Your task to perform on an android device: What's the weather like in Johannesburg? Image 0: 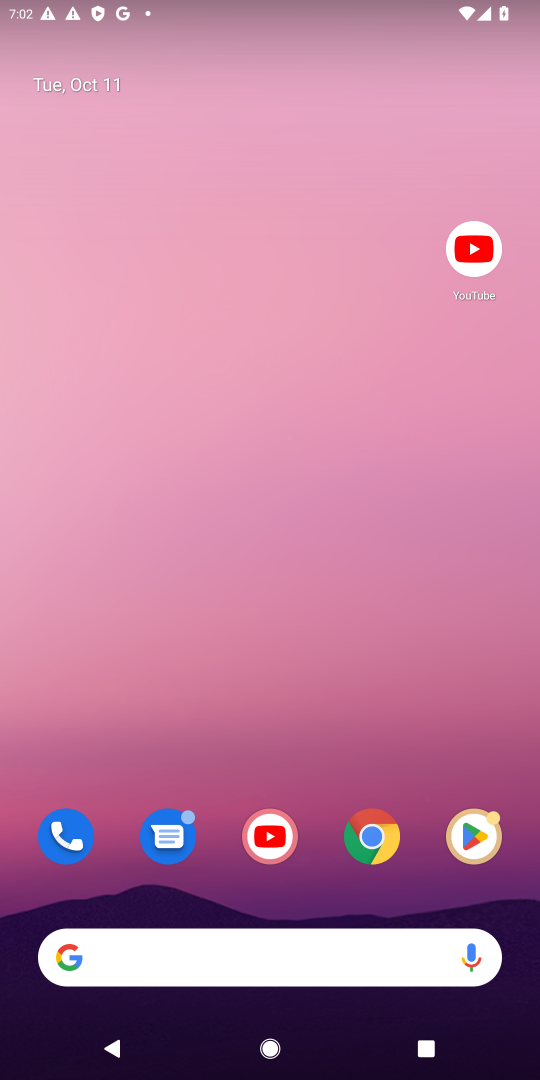
Step 0: click (368, 836)
Your task to perform on an android device: What's the weather like in Johannesburg? Image 1: 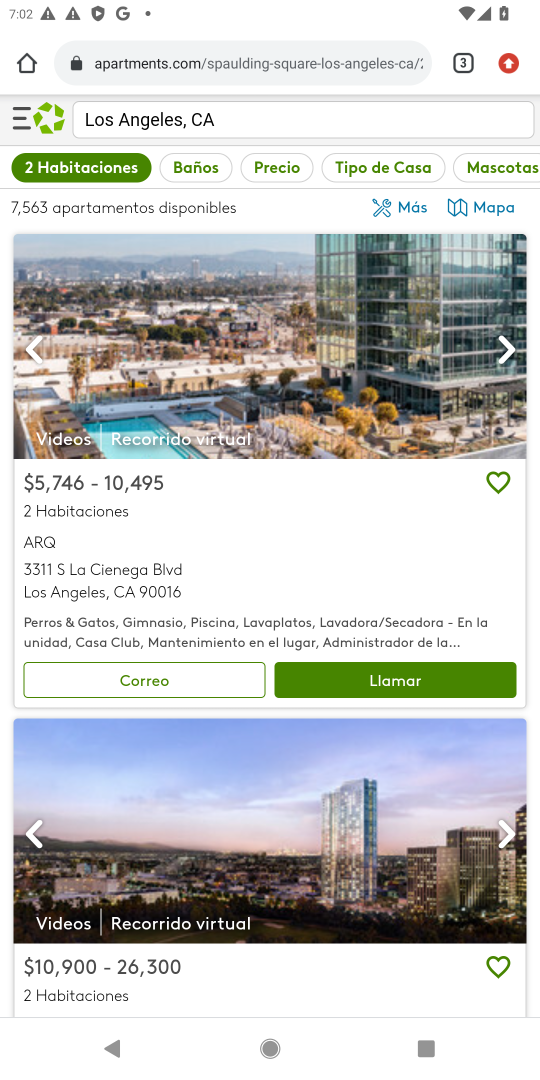
Step 1: click (331, 49)
Your task to perform on an android device: What's the weather like in Johannesburg? Image 2: 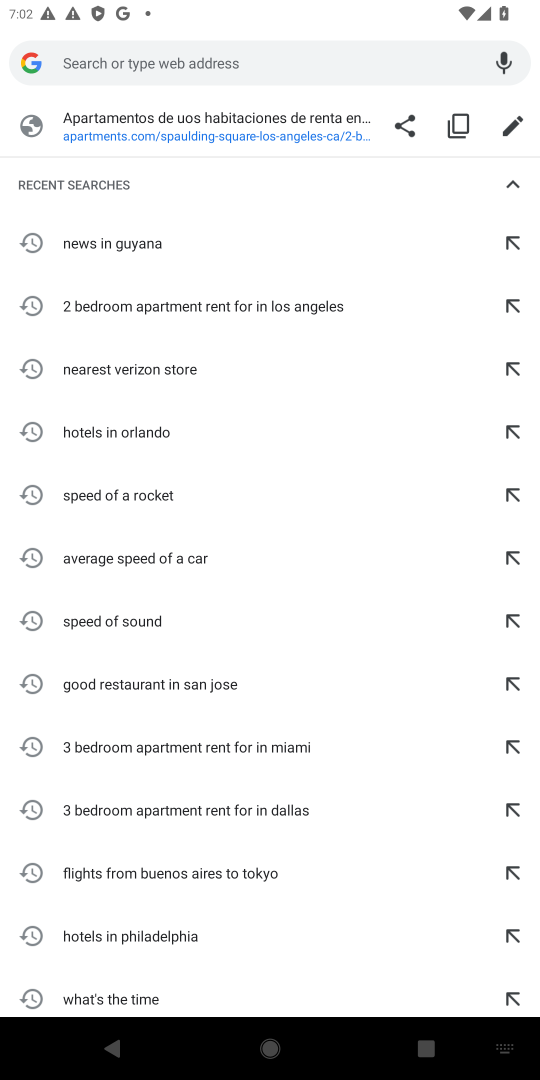
Step 2: type " weather like in Johannesburg"
Your task to perform on an android device: What's the weather like in Johannesburg? Image 3: 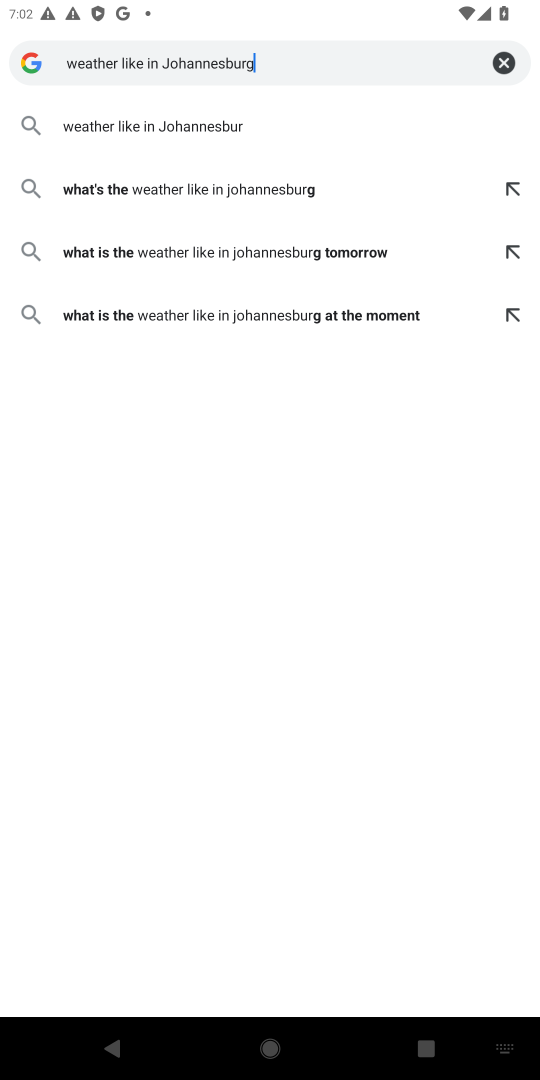
Step 3: press enter
Your task to perform on an android device: What's the weather like in Johannesburg? Image 4: 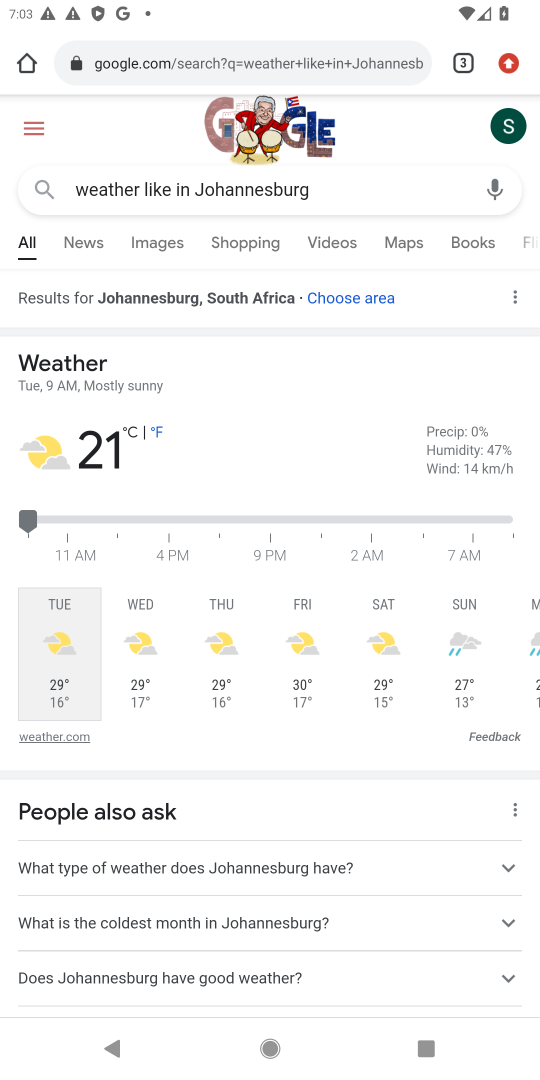
Step 4: task complete